Your task to perform on an android device: Open the phone app and click the voicemail tab. Image 0: 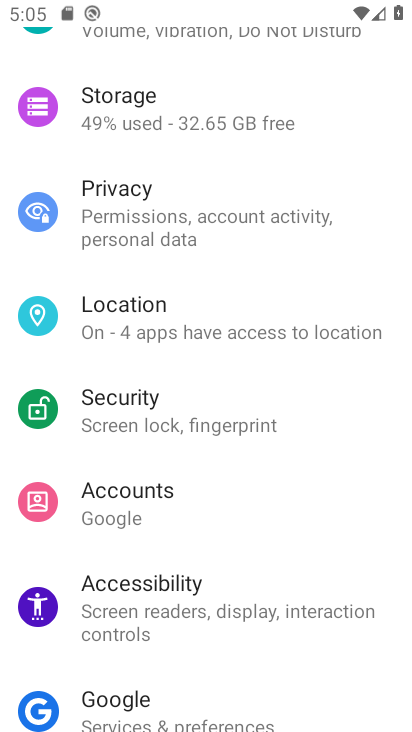
Step 0: press home button
Your task to perform on an android device: Open the phone app and click the voicemail tab. Image 1: 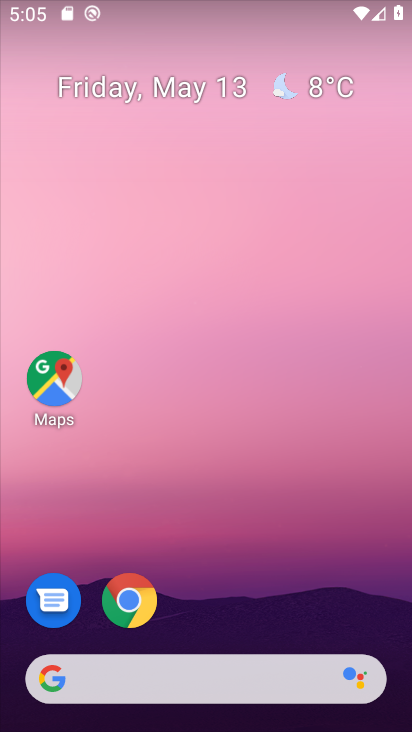
Step 1: drag from (237, 599) to (243, 92)
Your task to perform on an android device: Open the phone app and click the voicemail tab. Image 2: 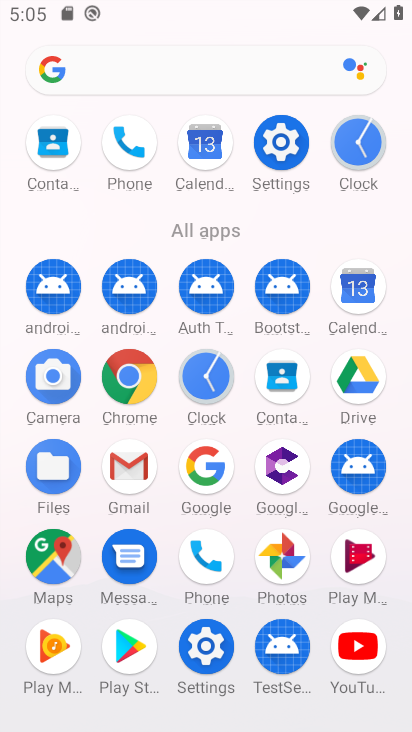
Step 2: click (214, 557)
Your task to perform on an android device: Open the phone app and click the voicemail tab. Image 3: 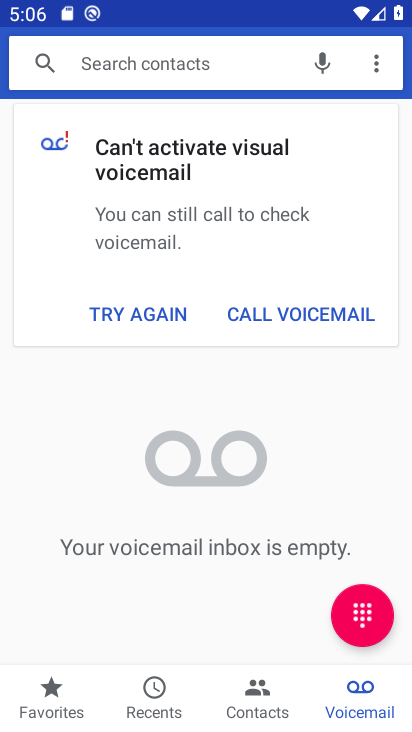
Step 3: click (354, 670)
Your task to perform on an android device: Open the phone app and click the voicemail tab. Image 4: 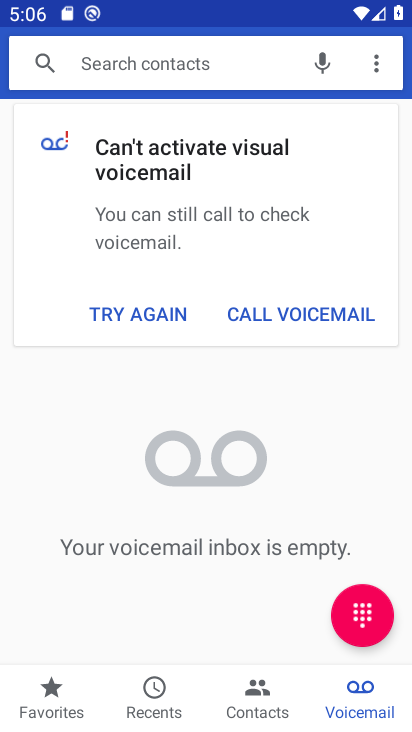
Step 4: task complete